Your task to perform on an android device: toggle data saver in the chrome app Image 0: 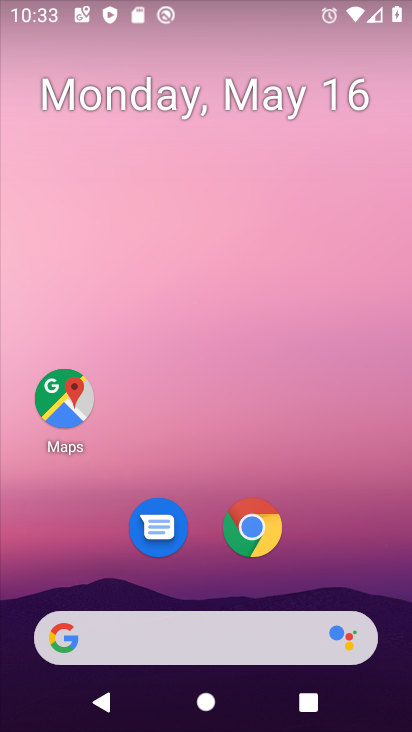
Step 0: click (259, 531)
Your task to perform on an android device: toggle data saver in the chrome app Image 1: 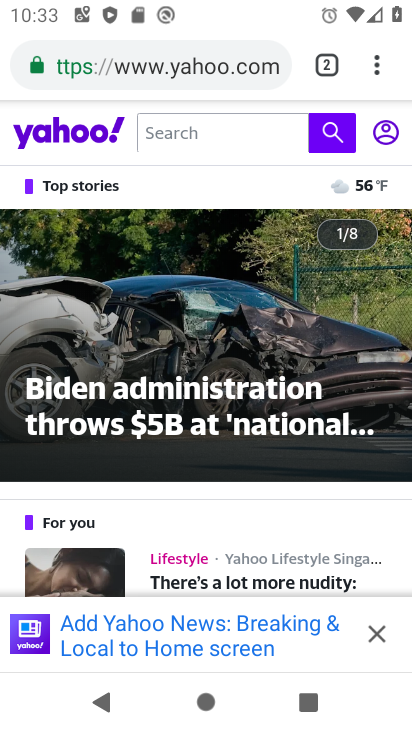
Step 1: click (382, 57)
Your task to perform on an android device: toggle data saver in the chrome app Image 2: 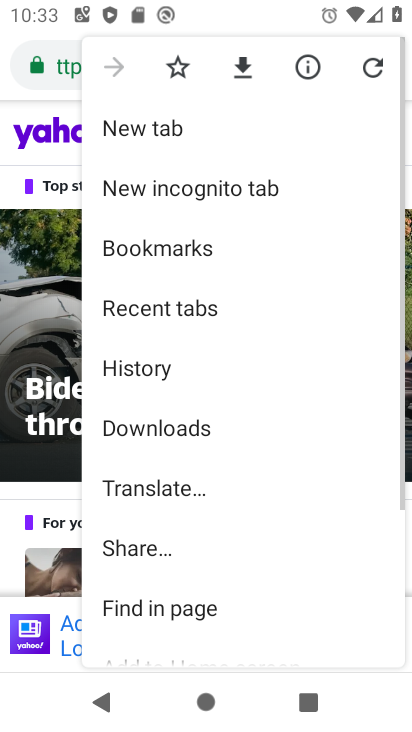
Step 2: drag from (224, 498) to (276, 191)
Your task to perform on an android device: toggle data saver in the chrome app Image 3: 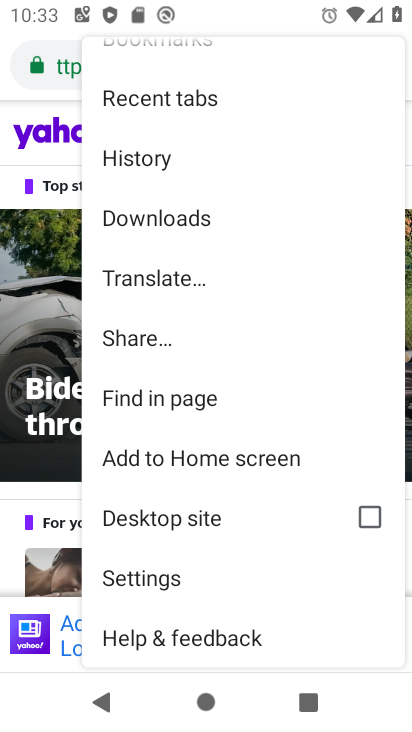
Step 3: click (155, 583)
Your task to perform on an android device: toggle data saver in the chrome app Image 4: 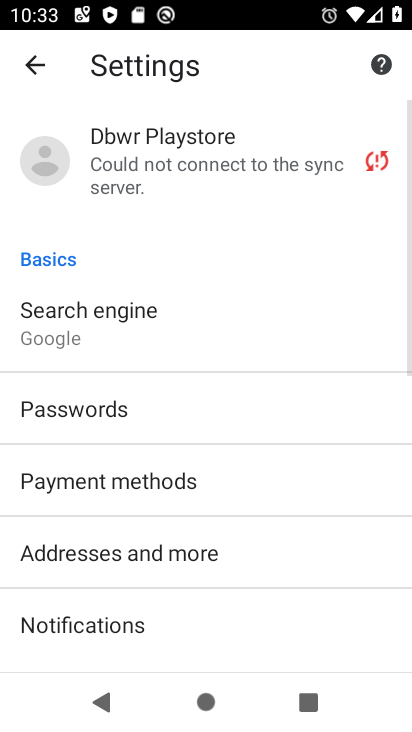
Step 4: drag from (241, 586) to (253, 168)
Your task to perform on an android device: toggle data saver in the chrome app Image 5: 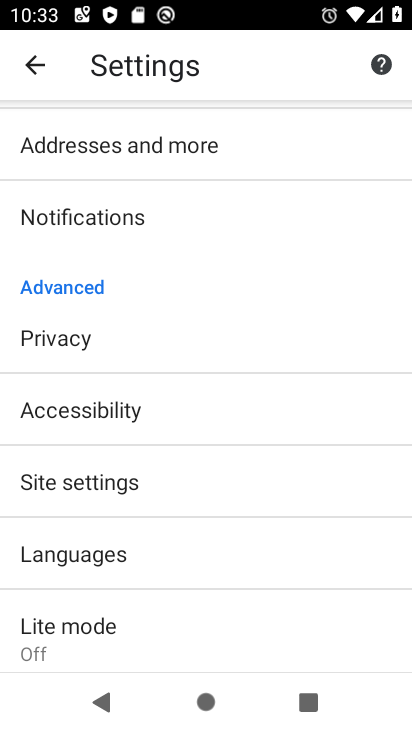
Step 5: click (75, 619)
Your task to perform on an android device: toggle data saver in the chrome app Image 6: 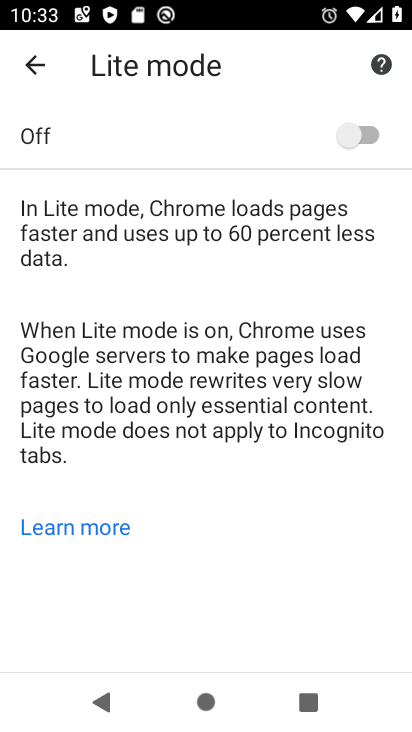
Step 6: click (357, 136)
Your task to perform on an android device: toggle data saver in the chrome app Image 7: 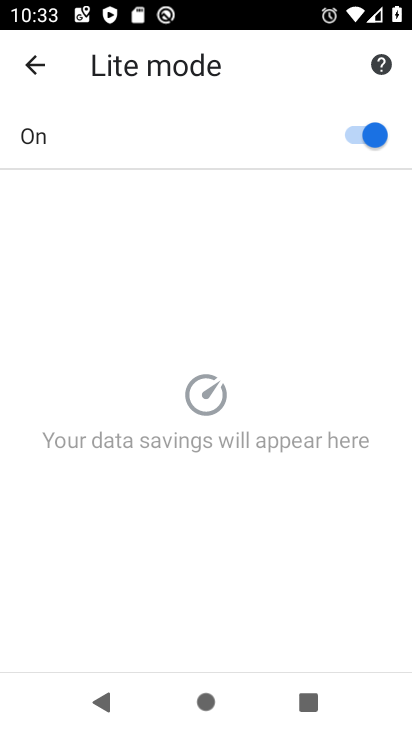
Step 7: task complete